Your task to perform on an android device: toggle improve location accuracy Image 0: 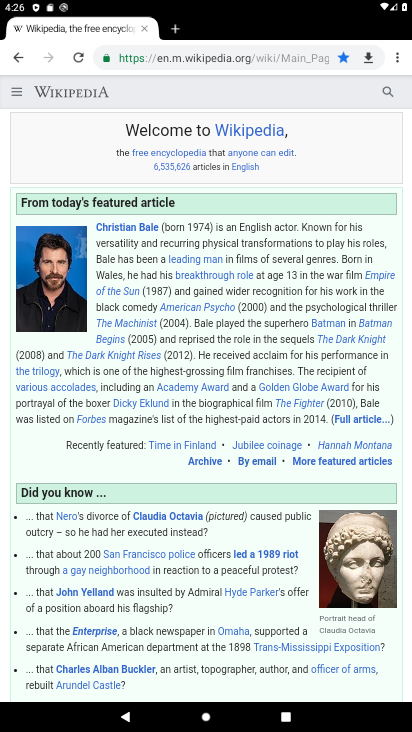
Step 0: press home button
Your task to perform on an android device: toggle improve location accuracy Image 1: 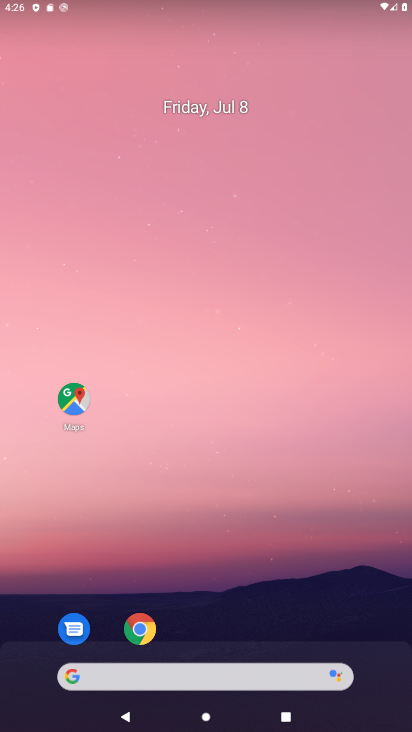
Step 1: drag from (203, 650) to (289, 128)
Your task to perform on an android device: toggle improve location accuracy Image 2: 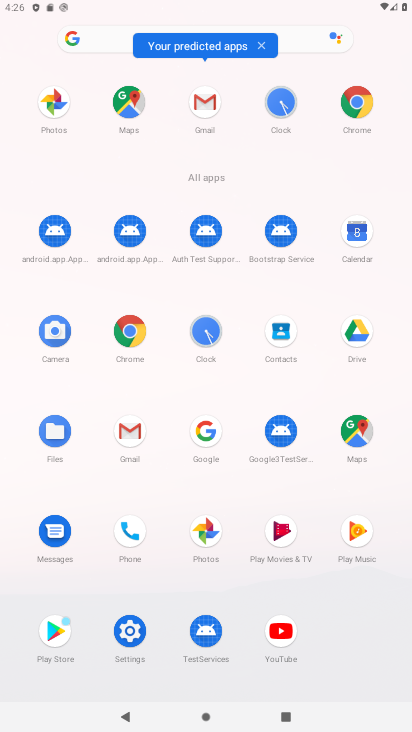
Step 2: click (130, 637)
Your task to perform on an android device: toggle improve location accuracy Image 3: 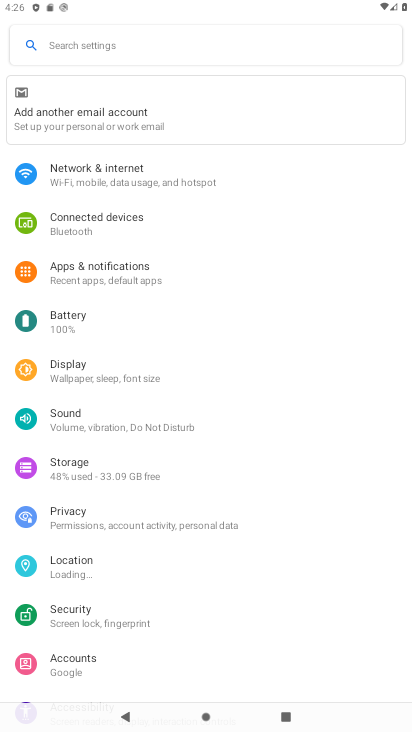
Step 3: click (93, 570)
Your task to perform on an android device: toggle improve location accuracy Image 4: 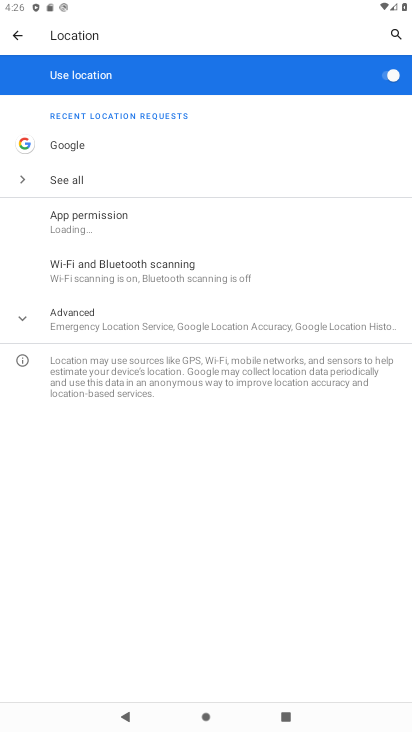
Step 4: click (132, 322)
Your task to perform on an android device: toggle improve location accuracy Image 5: 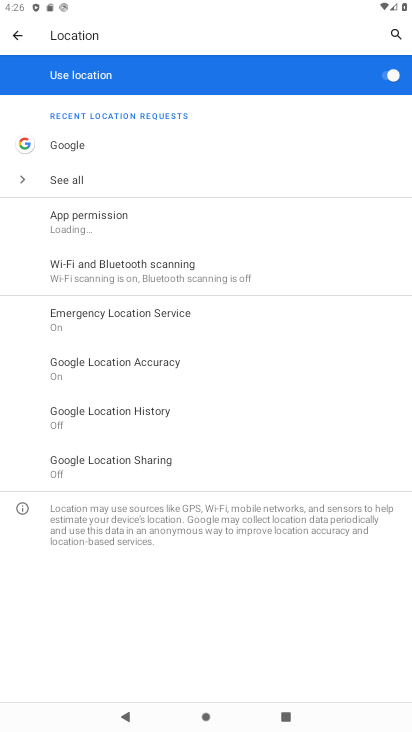
Step 5: click (167, 376)
Your task to perform on an android device: toggle improve location accuracy Image 6: 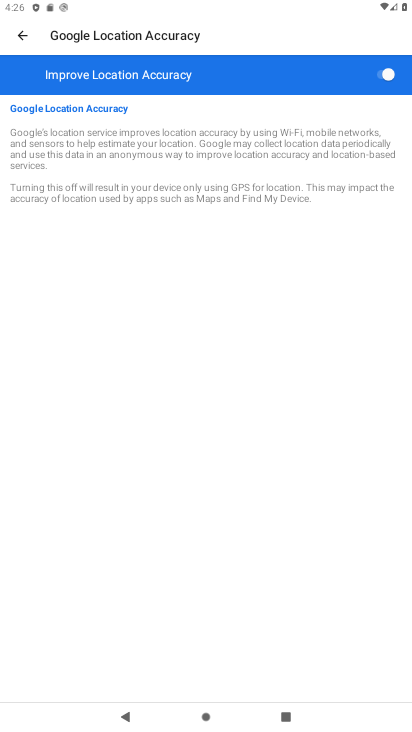
Step 6: click (387, 69)
Your task to perform on an android device: toggle improve location accuracy Image 7: 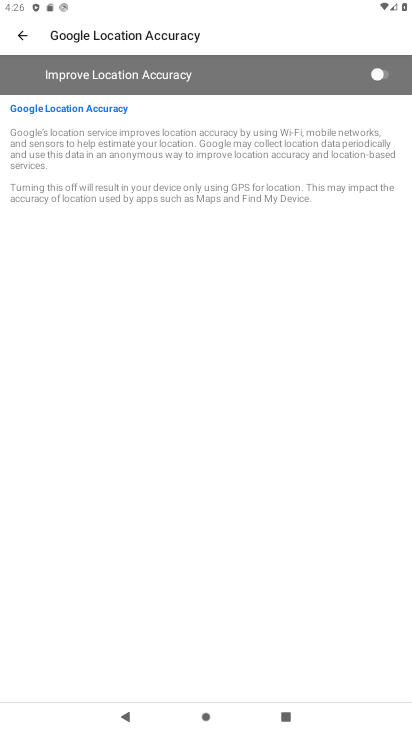
Step 7: task complete